Your task to perform on an android device: Go to sound settings Image 0: 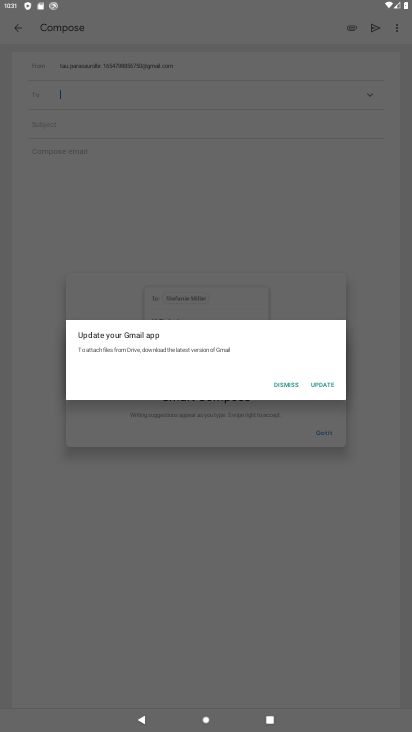
Step 0: press home button
Your task to perform on an android device: Go to sound settings Image 1: 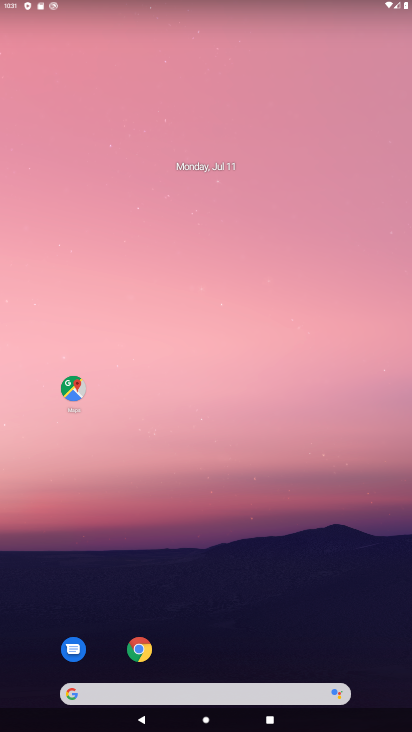
Step 1: drag from (282, 567) to (238, 137)
Your task to perform on an android device: Go to sound settings Image 2: 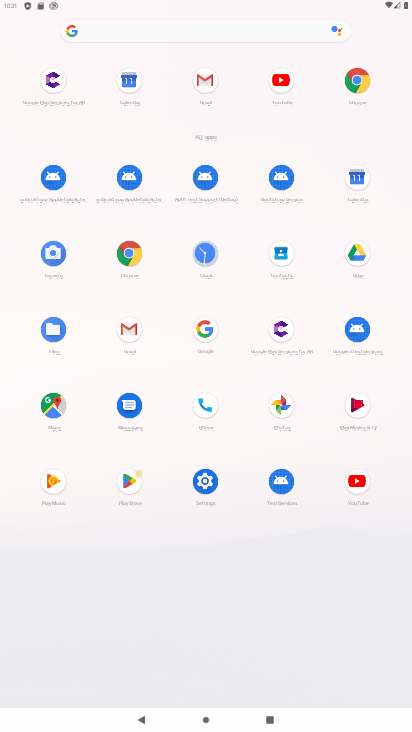
Step 2: click (208, 473)
Your task to perform on an android device: Go to sound settings Image 3: 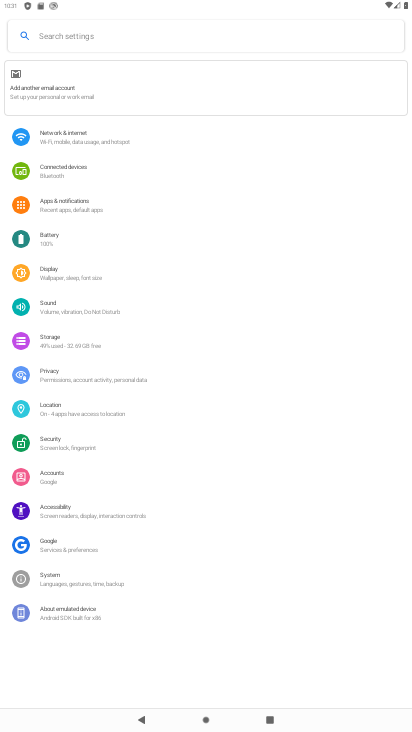
Step 3: click (58, 307)
Your task to perform on an android device: Go to sound settings Image 4: 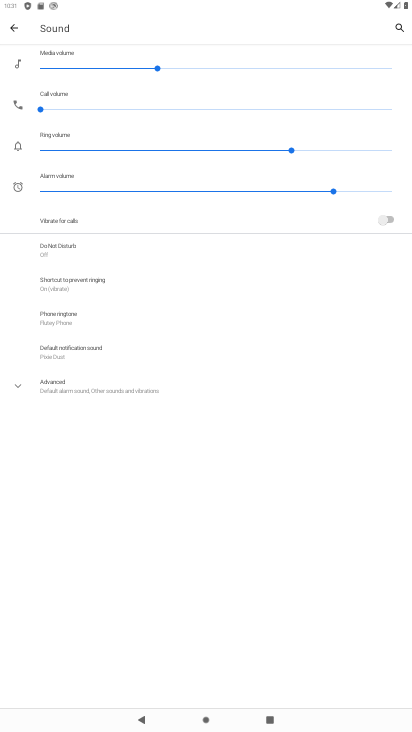
Step 4: task complete